Your task to perform on an android device: delete a single message in the gmail app Image 0: 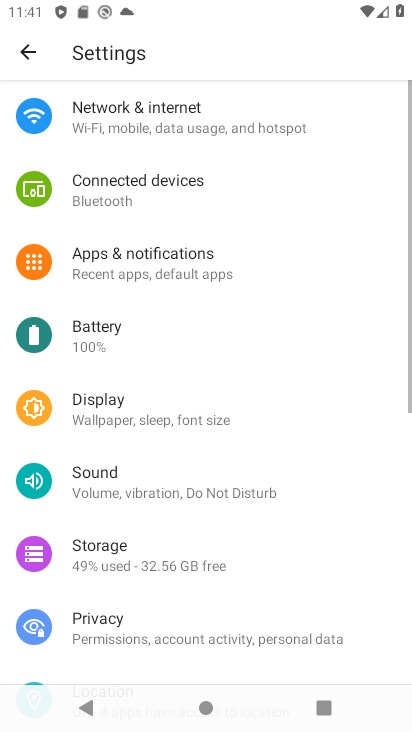
Step 0: press home button
Your task to perform on an android device: delete a single message in the gmail app Image 1: 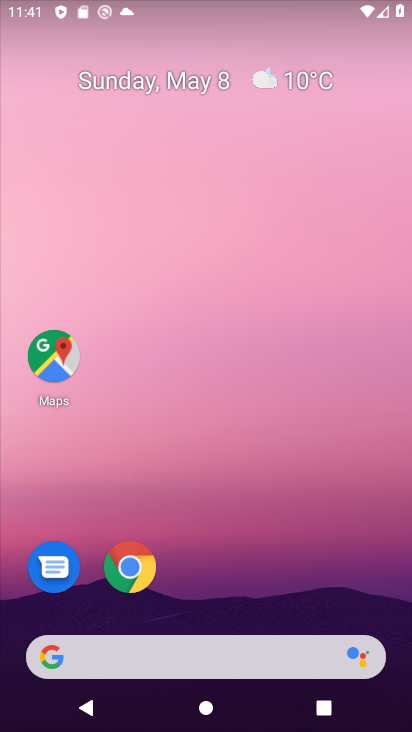
Step 1: drag from (249, 621) to (249, 154)
Your task to perform on an android device: delete a single message in the gmail app Image 2: 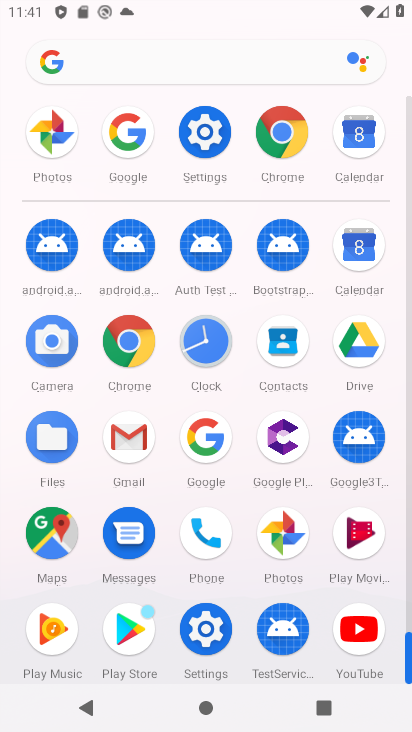
Step 2: click (127, 466)
Your task to perform on an android device: delete a single message in the gmail app Image 3: 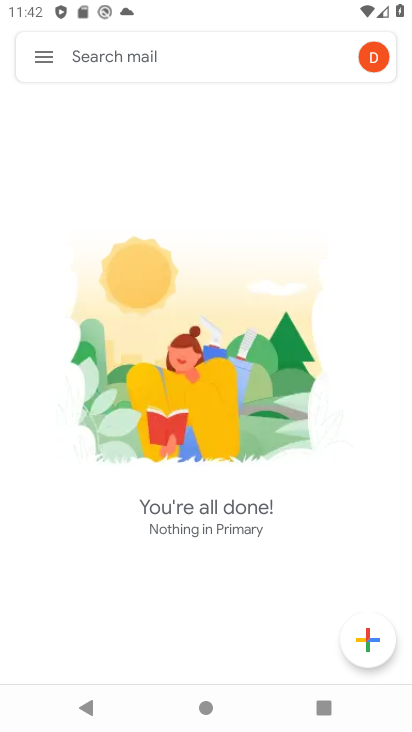
Step 3: click (45, 66)
Your task to perform on an android device: delete a single message in the gmail app Image 4: 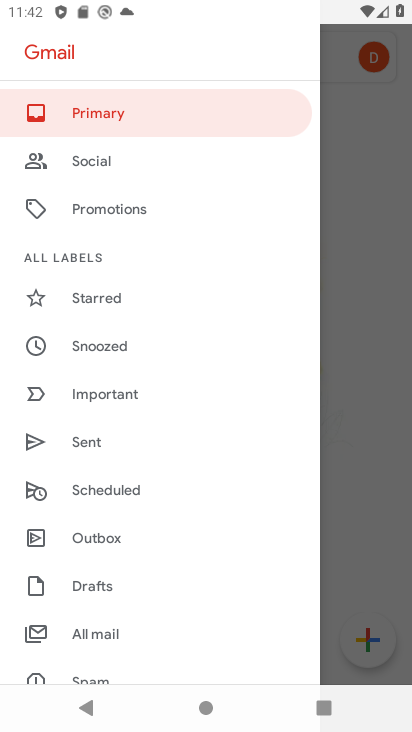
Step 4: drag from (96, 489) to (108, 178)
Your task to perform on an android device: delete a single message in the gmail app Image 5: 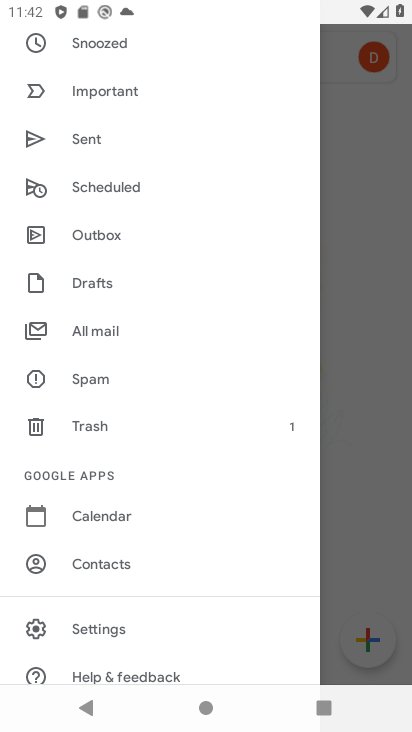
Step 5: click (96, 343)
Your task to perform on an android device: delete a single message in the gmail app Image 6: 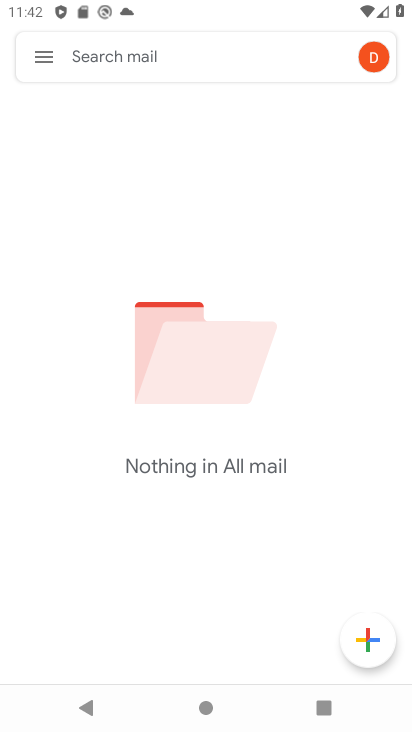
Step 6: task complete